Your task to perform on an android device: Open Google Chrome Image 0: 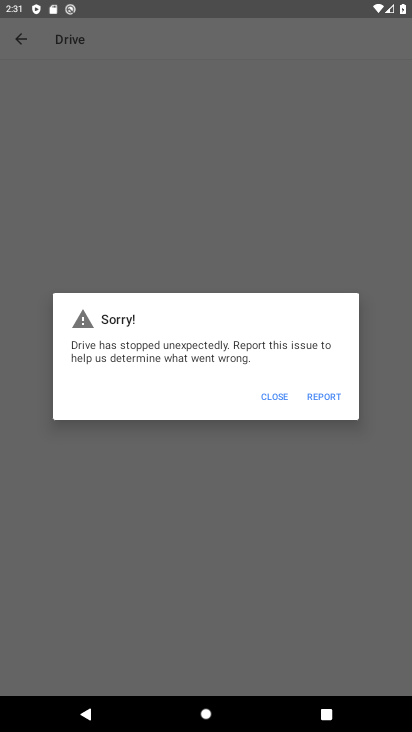
Step 0: press home button
Your task to perform on an android device: Open Google Chrome Image 1: 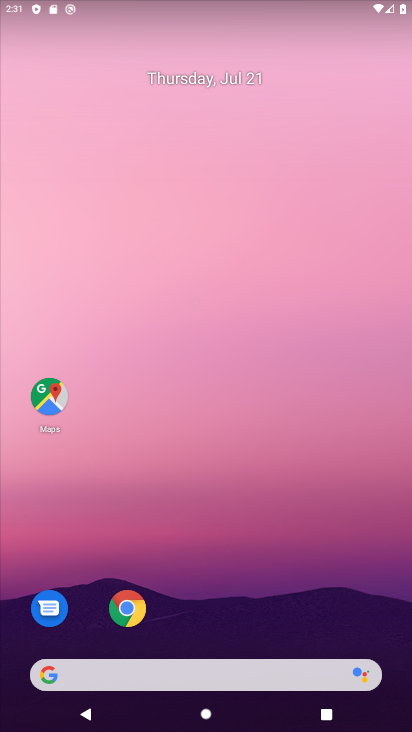
Step 1: click (123, 609)
Your task to perform on an android device: Open Google Chrome Image 2: 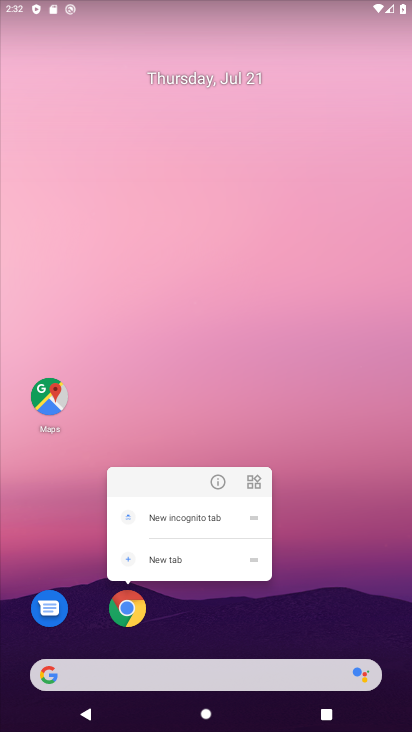
Step 2: click (132, 606)
Your task to perform on an android device: Open Google Chrome Image 3: 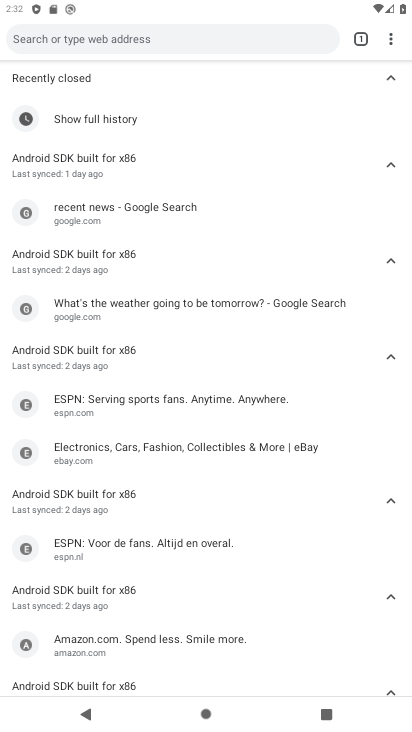
Step 3: task complete